Your task to perform on an android device: Search for vegetarian restaurants on Maps Image 0: 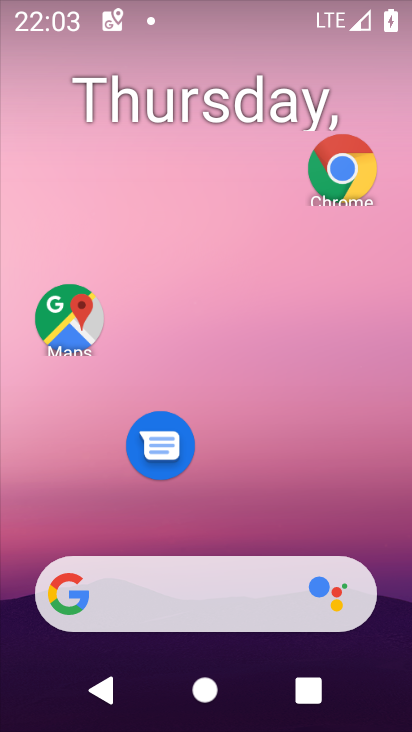
Step 0: drag from (212, 498) to (229, 19)
Your task to perform on an android device: Search for vegetarian restaurants on Maps Image 1: 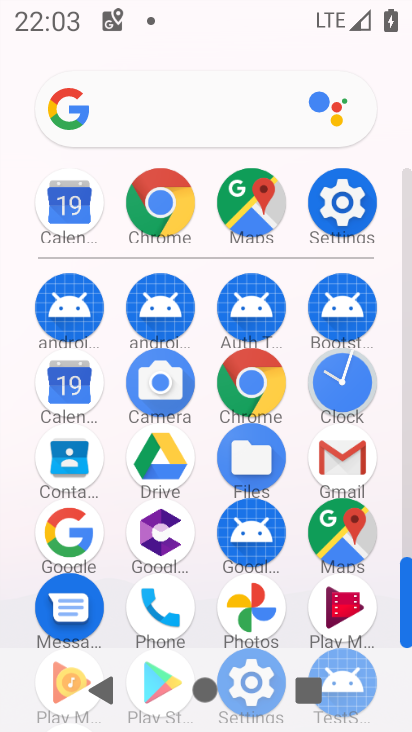
Step 1: click (349, 535)
Your task to perform on an android device: Search for vegetarian restaurants on Maps Image 2: 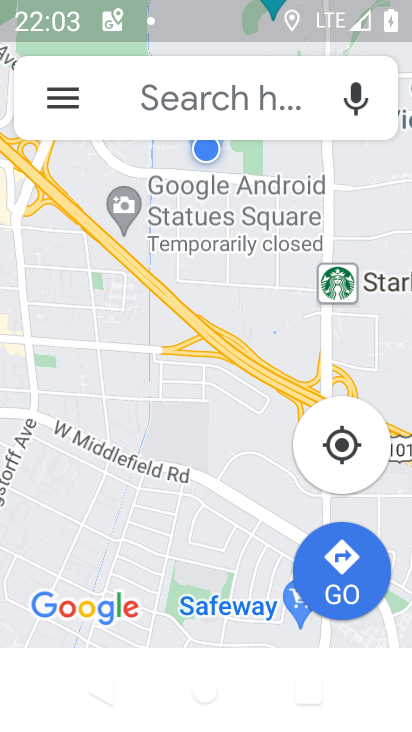
Step 2: click (120, 100)
Your task to perform on an android device: Search for vegetarian restaurants on Maps Image 3: 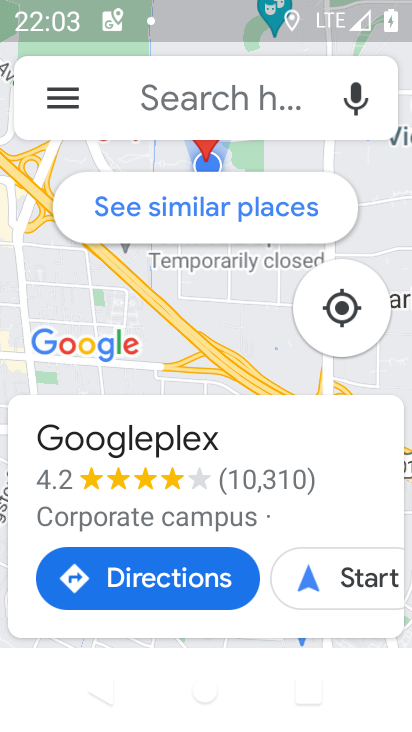
Step 3: click (166, 101)
Your task to perform on an android device: Search for vegetarian restaurants on Maps Image 4: 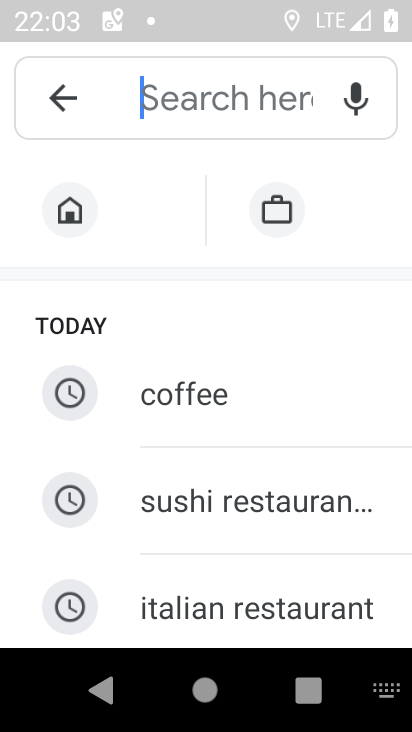
Step 4: click (231, 112)
Your task to perform on an android device: Search for vegetarian restaurants on Maps Image 5: 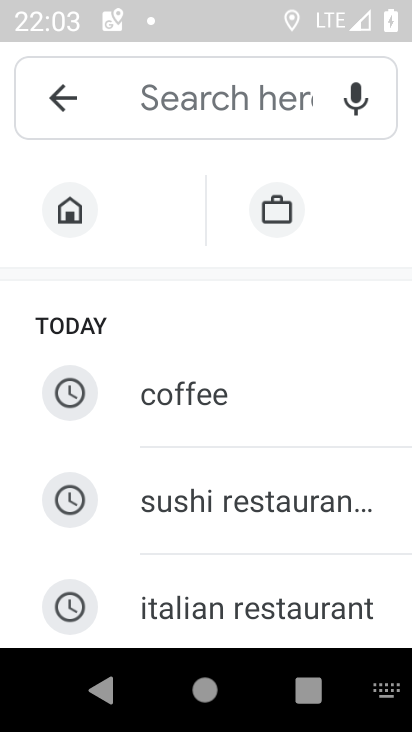
Step 5: drag from (230, 598) to (267, 174)
Your task to perform on an android device: Search for vegetarian restaurants on Maps Image 6: 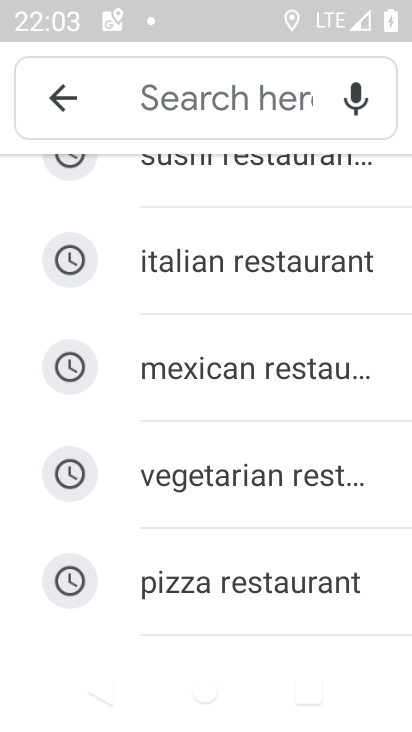
Step 6: click (199, 481)
Your task to perform on an android device: Search for vegetarian restaurants on Maps Image 7: 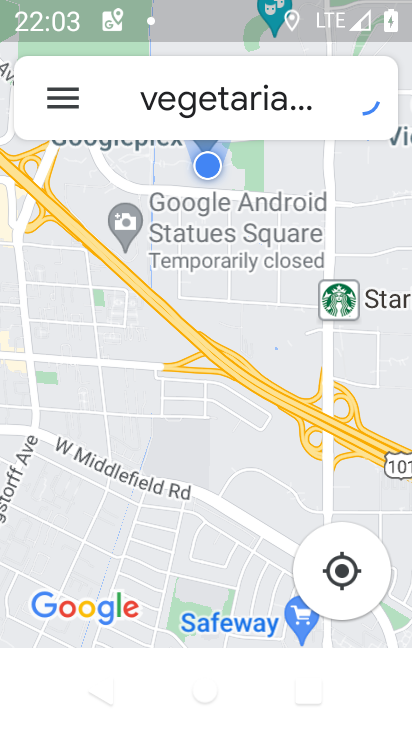
Step 7: task complete